Your task to perform on an android device: What's the weather going to be tomorrow? Image 0: 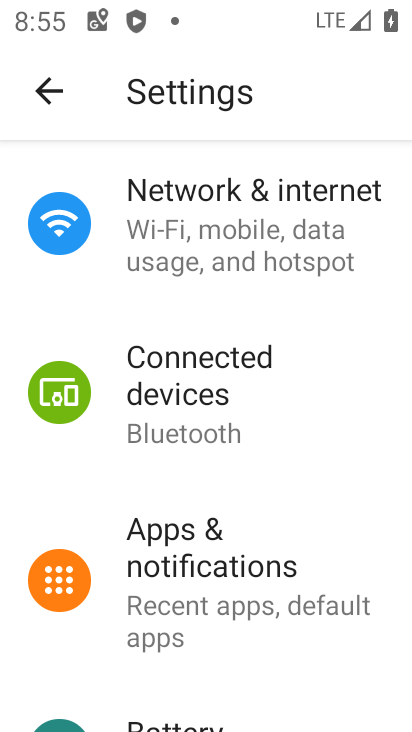
Step 0: press home button
Your task to perform on an android device: What's the weather going to be tomorrow? Image 1: 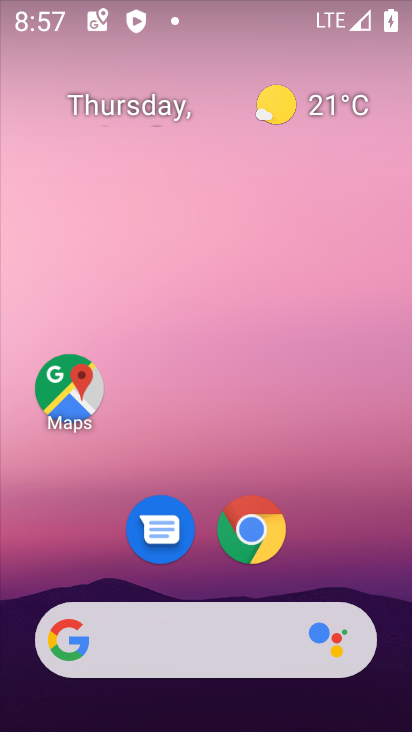
Step 1: click (117, 656)
Your task to perform on an android device: What's the weather going to be tomorrow? Image 2: 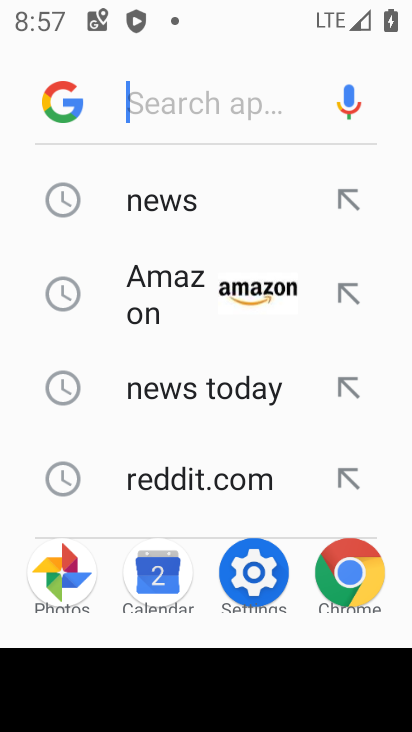
Step 2: type "What's the weather going to be tomorrow?"
Your task to perform on an android device: What's the weather going to be tomorrow? Image 3: 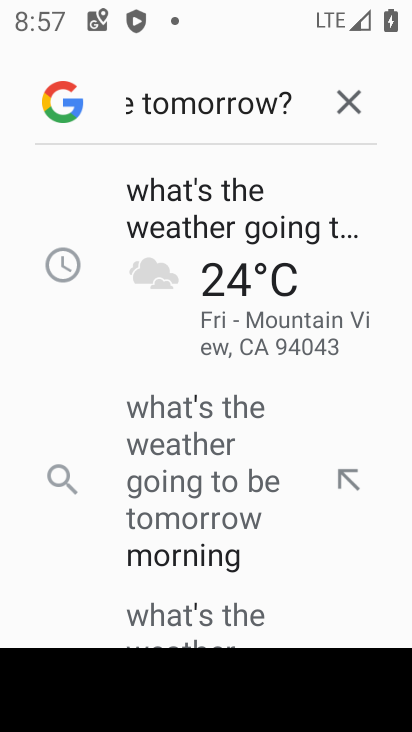
Step 3: click (254, 229)
Your task to perform on an android device: What's the weather going to be tomorrow? Image 4: 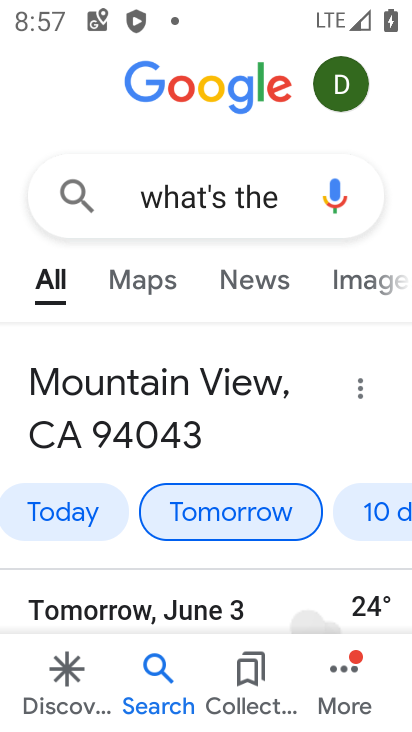
Step 4: task complete